Your task to perform on an android device: install app "ZOOM Cloud Meetings" Image 0: 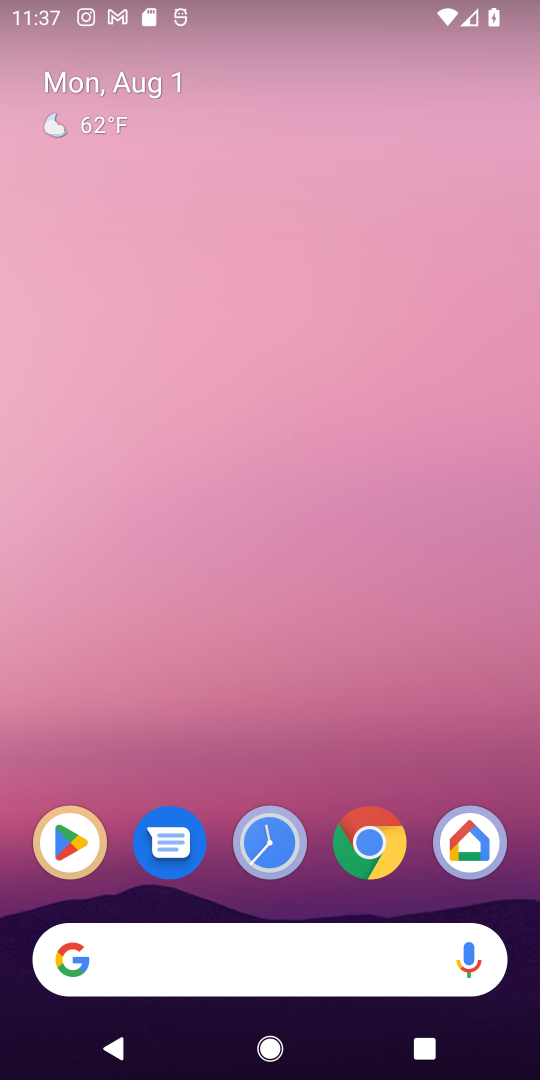
Step 0: click (74, 845)
Your task to perform on an android device: install app "ZOOM Cloud Meetings" Image 1: 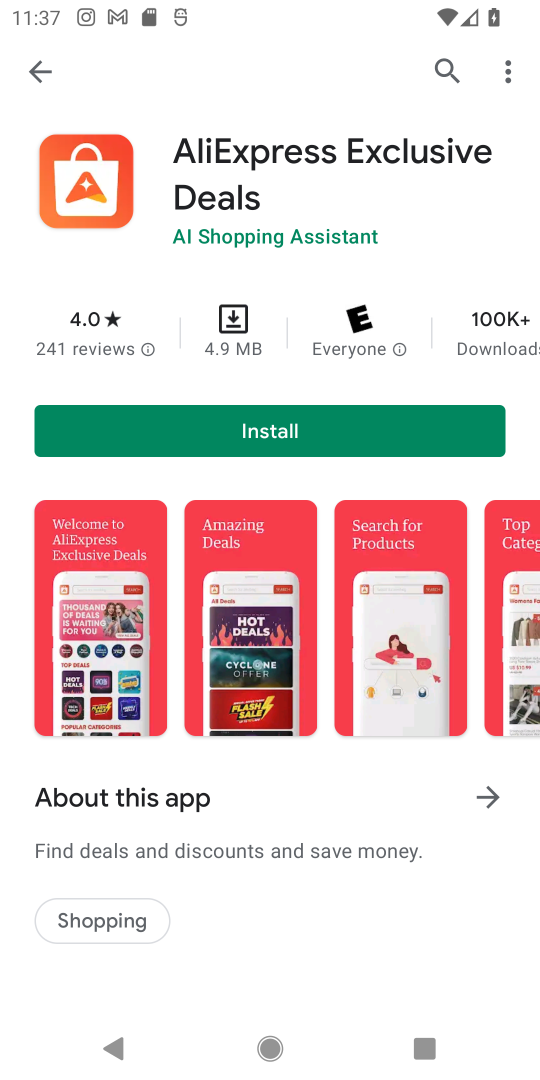
Step 1: click (446, 81)
Your task to perform on an android device: install app "ZOOM Cloud Meetings" Image 2: 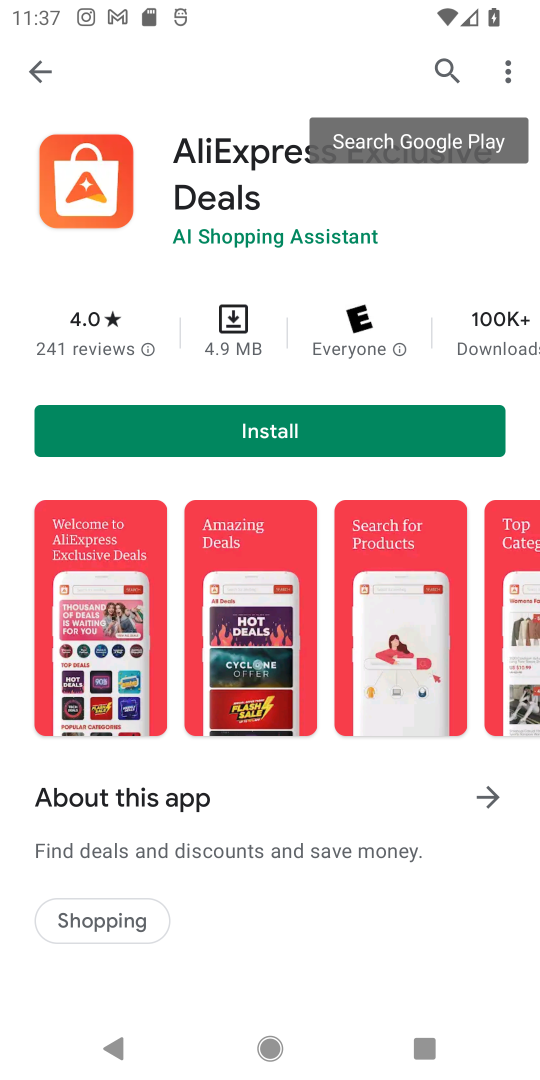
Step 2: click (430, 85)
Your task to perform on an android device: install app "ZOOM Cloud Meetings" Image 3: 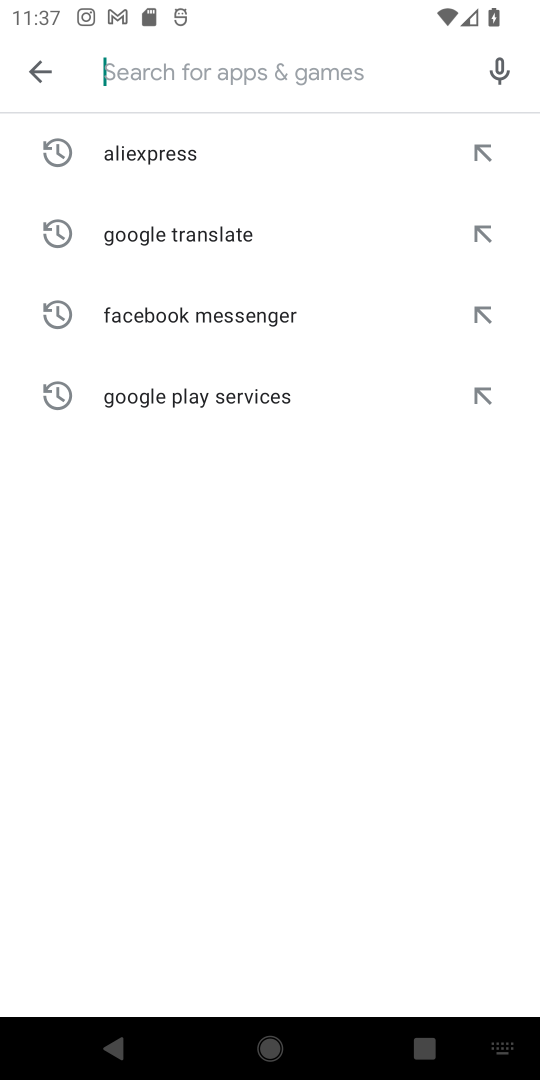
Step 3: click (262, 66)
Your task to perform on an android device: install app "ZOOM Cloud Meetings" Image 4: 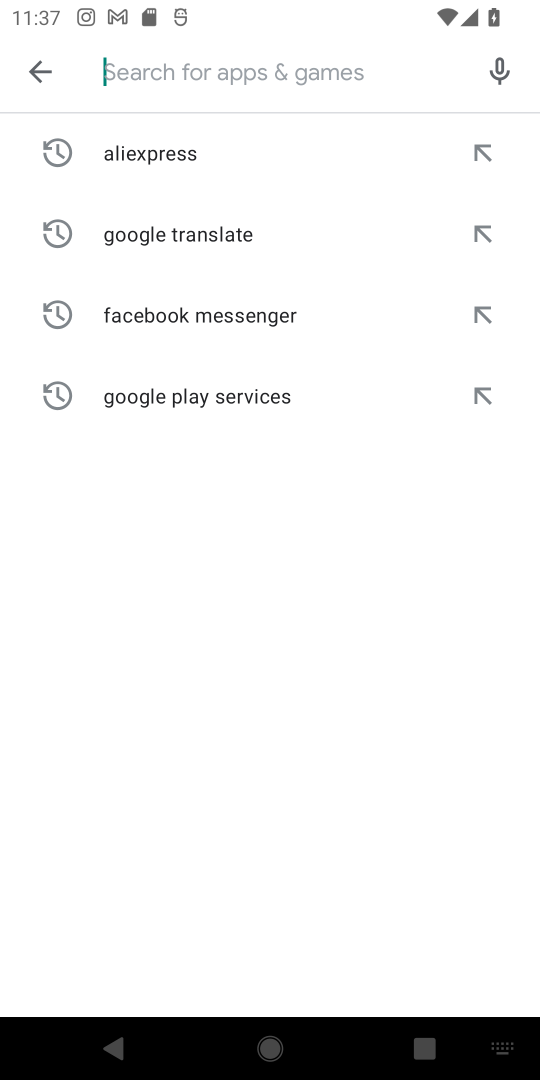
Step 4: type "zoom cloud meeting"
Your task to perform on an android device: install app "ZOOM Cloud Meetings" Image 5: 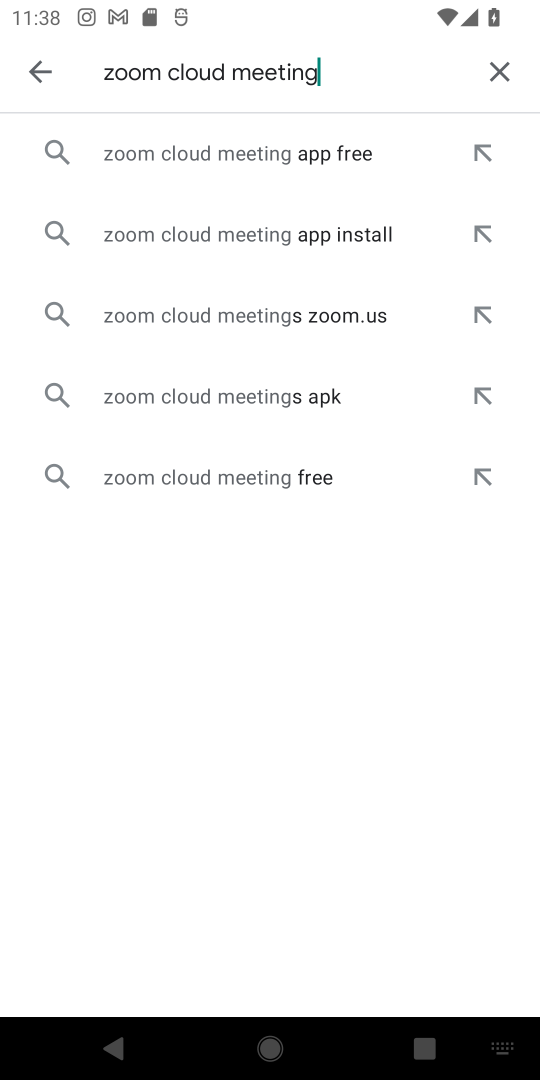
Step 5: click (253, 141)
Your task to perform on an android device: install app "ZOOM Cloud Meetings" Image 6: 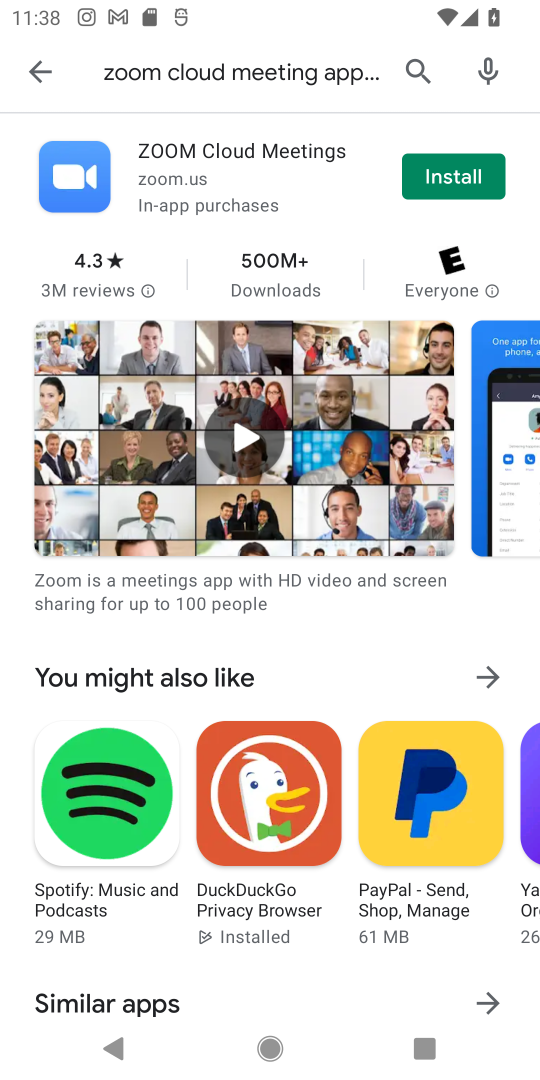
Step 6: click (427, 183)
Your task to perform on an android device: install app "ZOOM Cloud Meetings" Image 7: 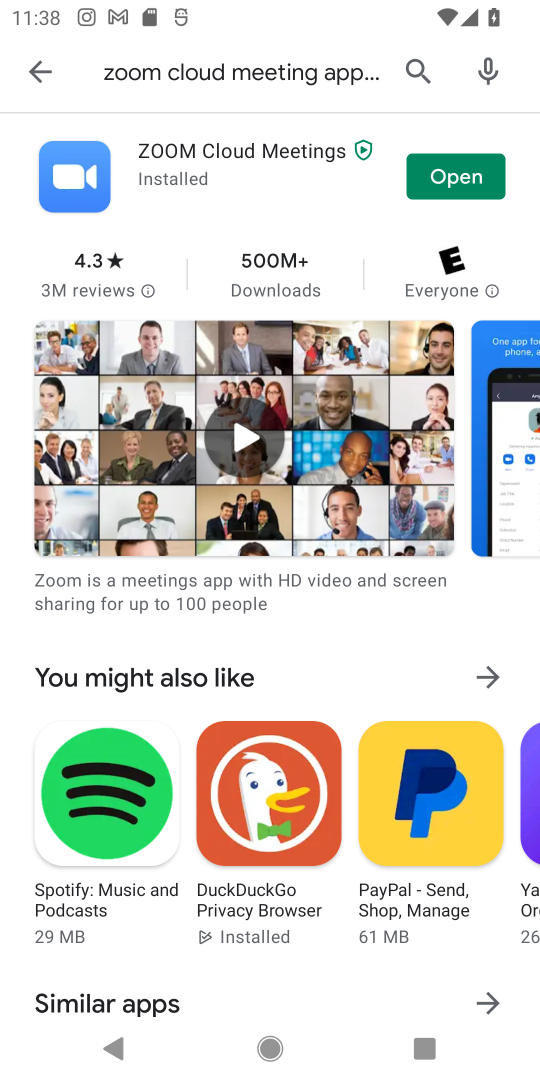
Step 7: click (452, 175)
Your task to perform on an android device: install app "ZOOM Cloud Meetings" Image 8: 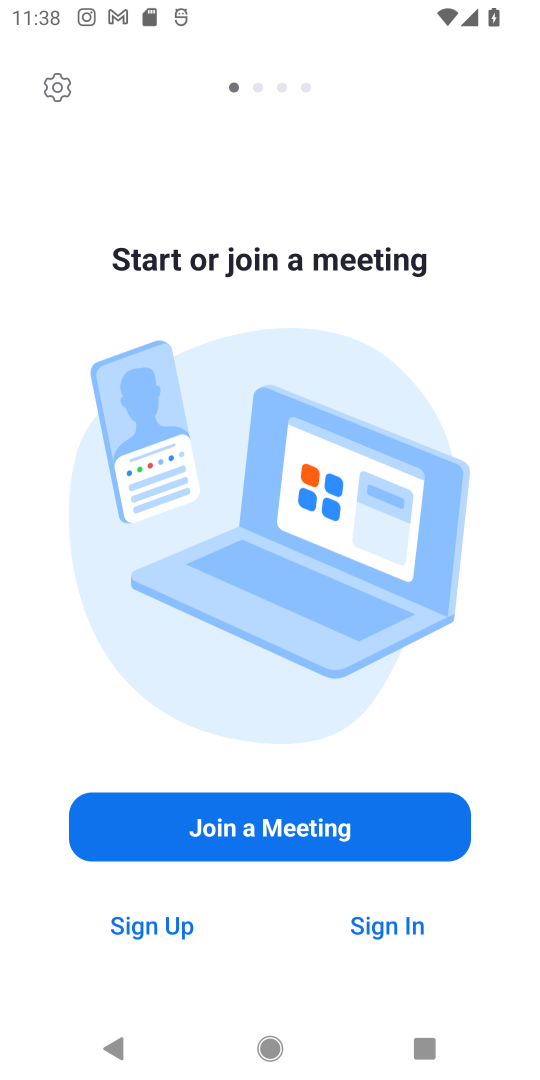
Step 8: task complete